Your task to perform on an android device: Go to Google maps Image 0: 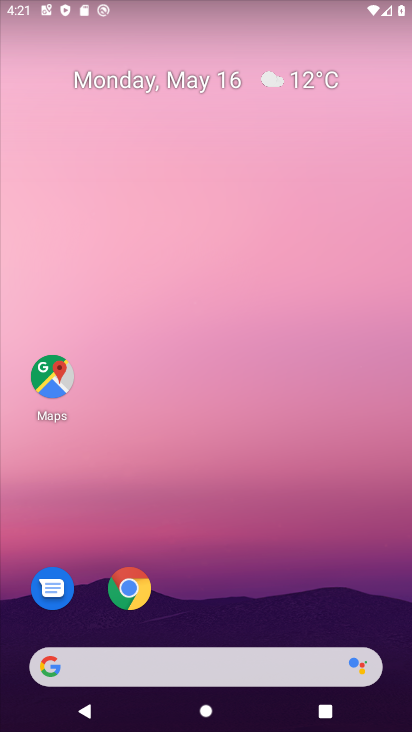
Step 0: click (53, 373)
Your task to perform on an android device: Go to Google maps Image 1: 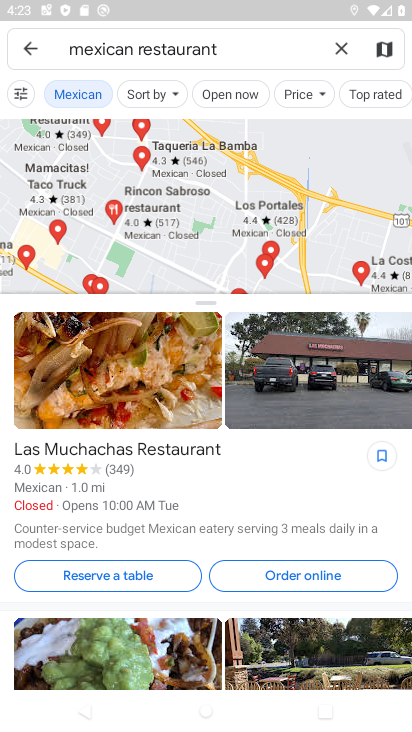
Step 1: task complete